Your task to perform on an android device: open app "Fetch Rewards" (install if not already installed) and enter user name: "Westwood@yahoo.com" and password: "qualifying" Image 0: 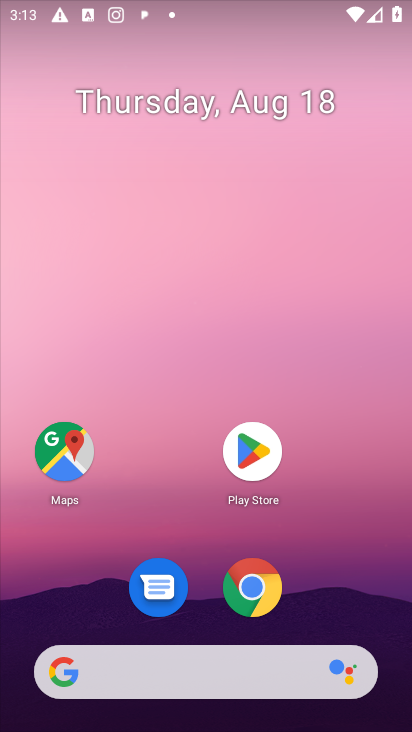
Step 0: click (252, 445)
Your task to perform on an android device: open app "Fetch Rewards" (install if not already installed) and enter user name: "Westwood@yahoo.com" and password: "qualifying" Image 1: 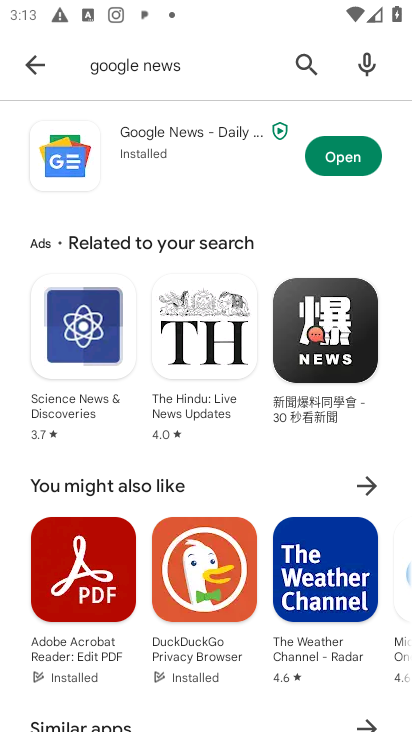
Step 1: click (302, 65)
Your task to perform on an android device: open app "Fetch Rewards" (install if not already installed) and enter user name: "Westwood@yahoo.com" and password: "qualifying" Image 2: 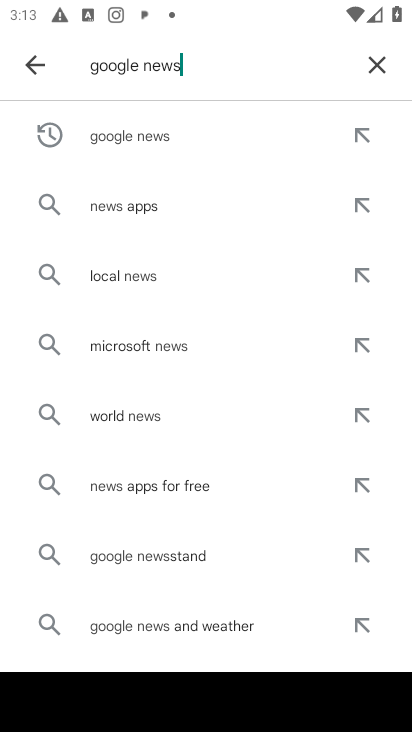
Step 2: click (377, 60)
Your task to perform on an android device: open app "Fetch Rewards" (install if not already installed) and enter user name: "Westwood@yahoo.com" and password: "qualifying" Image 3: 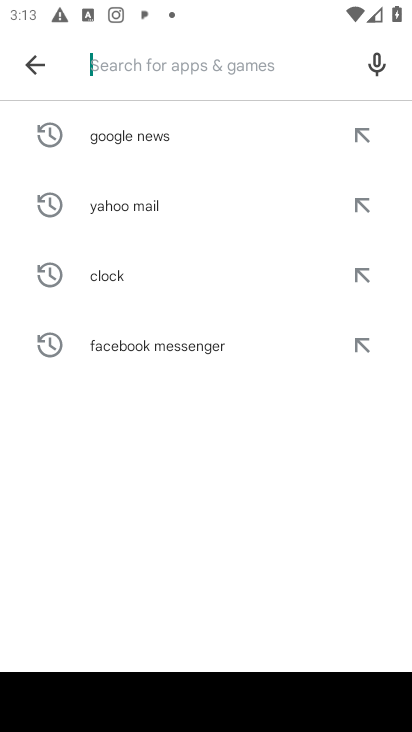
Step 3: type "Fetch Rewards"
Your task to perform on an android device: open app "Fetch Rewards" (install if not already installed) and enter user name: "Westwood@yahoo.com" and password: "qualifying" Image 4: 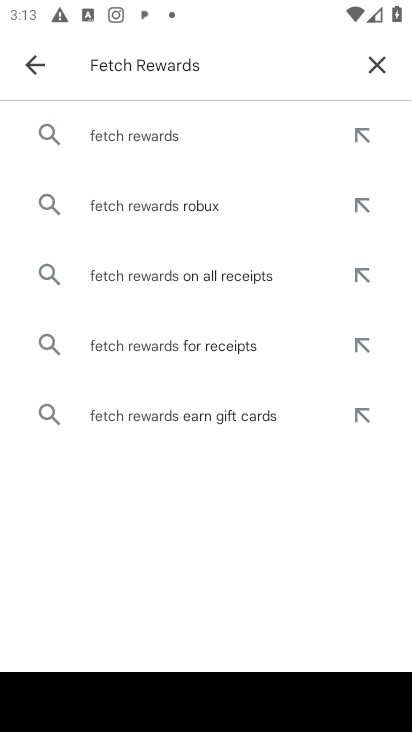
Step 4: click (155, 133)
Your task to perform on an android device: open app "Fetch Rewards" (install if not already installed) and enter user name: "Westwood@yahoo.com" and password: "qualifying" Image 5: 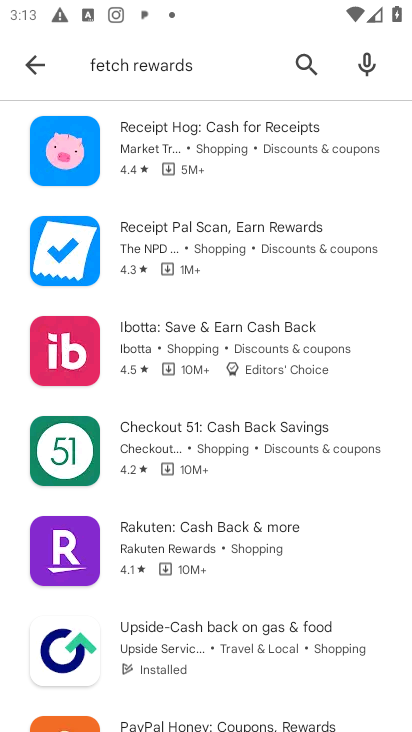
Step 5: task complete